Your task to perform on an android device: Open calendar and show me the fourth week of next month Image 0: 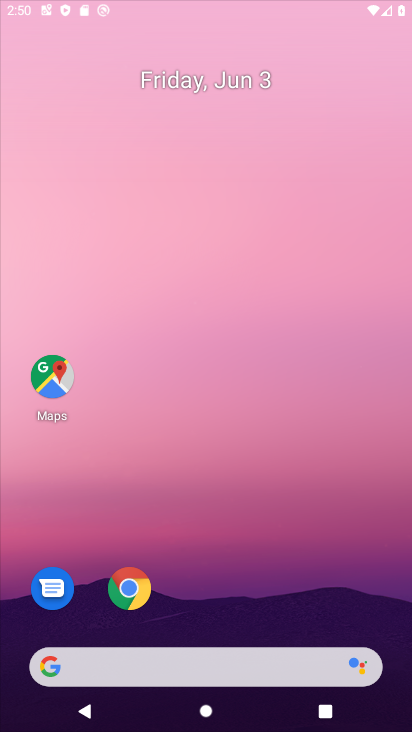
Step 0: drag from (237, 620) to (261, 98)
Your task to perform on an android device: Open calendar and show me the fourth week of next month Image 1: 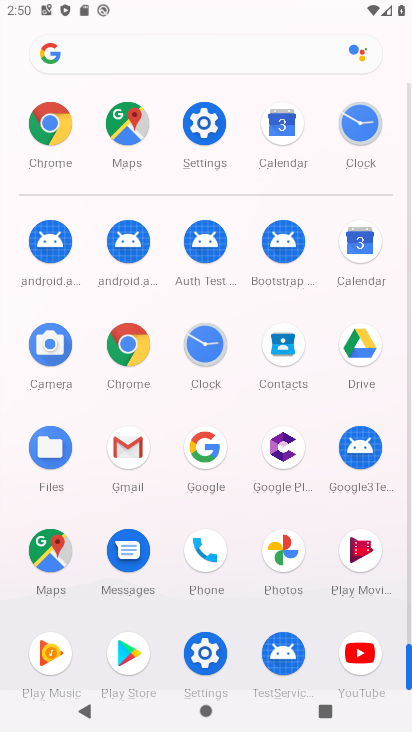
Step 1: click (365, 246)
Your task to perform on an android device: Open calendar and show me the fourth week of next month Image 2: 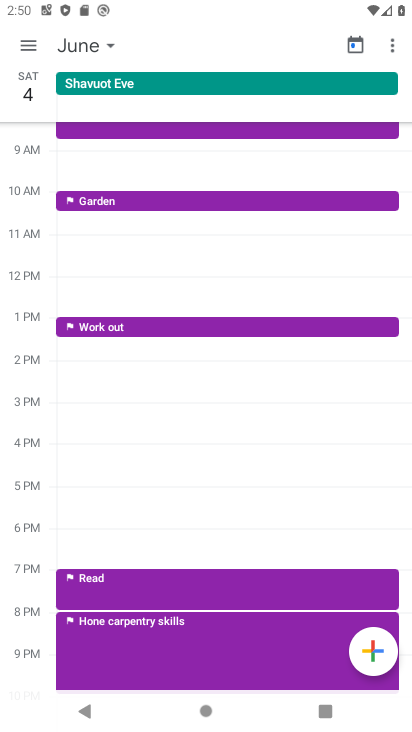
Step 2: click (99, 54)
Your task to perform on an android device: Open calendar and show me the fourth week of next month Image 3: 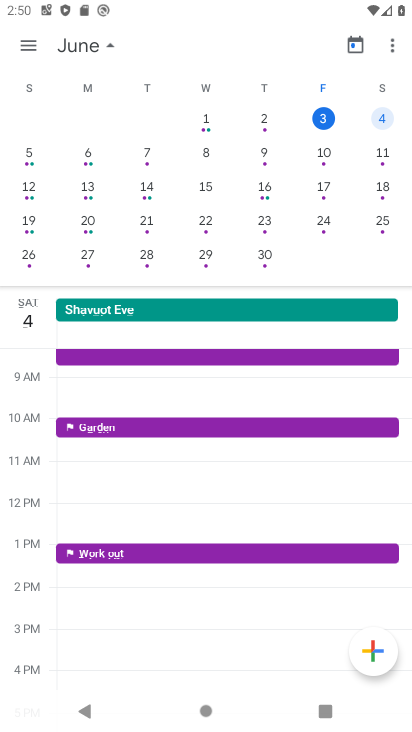
Step 3: drag from (332, 203) to (3, 264)
Your task to perform on an android device: Open calendar and show me the fourth week of next month Image 4: 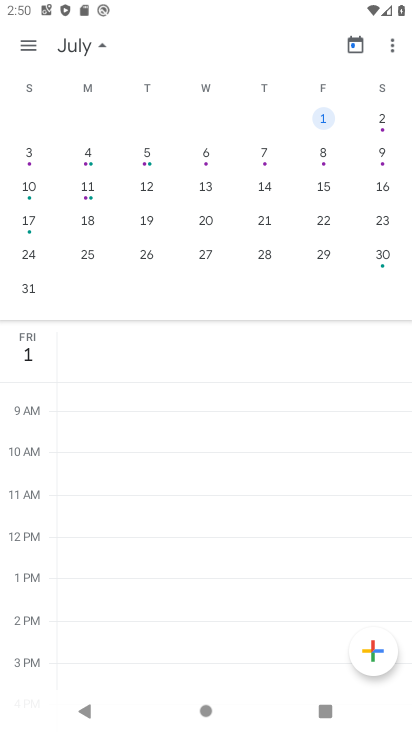
Step 4: click (25, 226)
Your task to perform on an android device: Open calendar and show me the fourth week of next month Image 5: 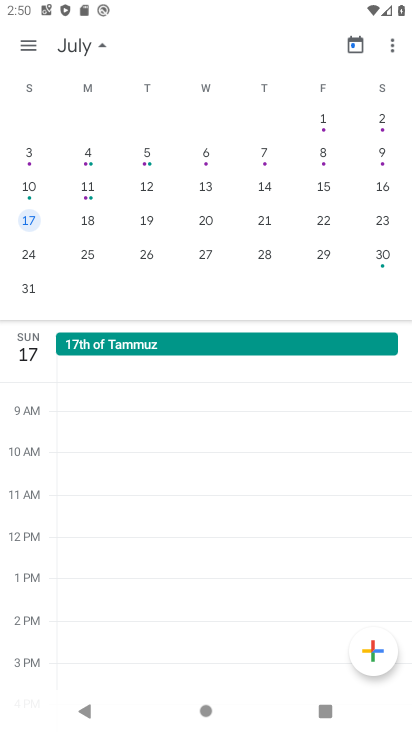
Step 5: click (100, 48)
Your task to perform on an android device: Open calendar and show me the fourth week of next month Image 6: 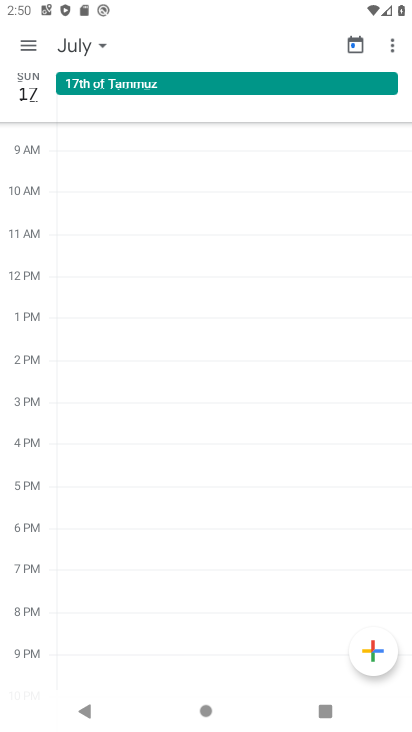
Step 6: task complete